Your task to perform on an android device: toggle priority inbox in the gmail app Image 0: 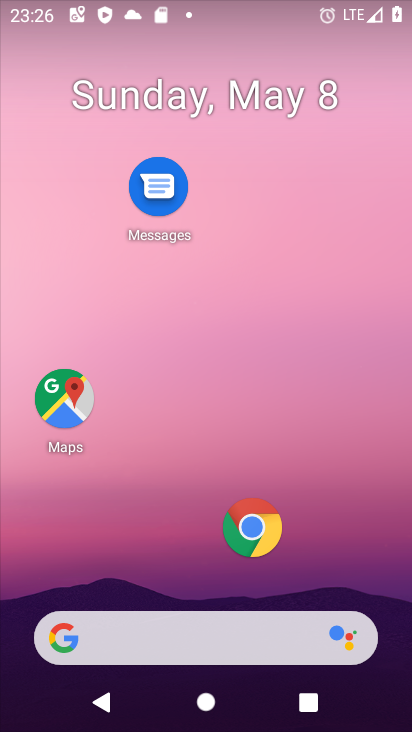
Step 0: drag from (177, 574) to (193, 90)
Your task to perform on an android device: toggle priority inbox in the gmail app Image 1: 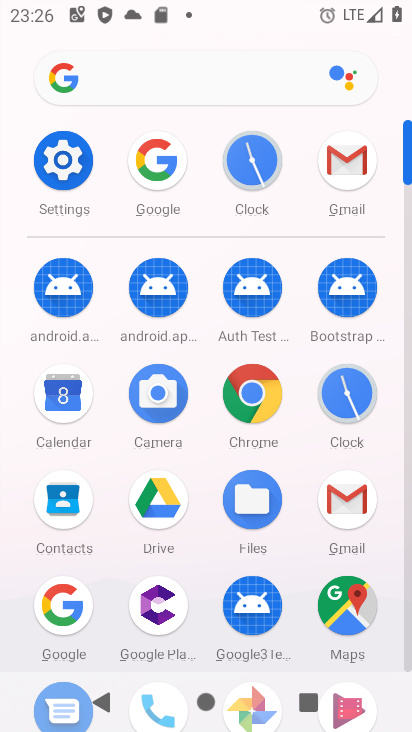
Step 1: click (347, 162)
Your task to perform on an android device: toggle priority inbox in the gmail app Image 2: 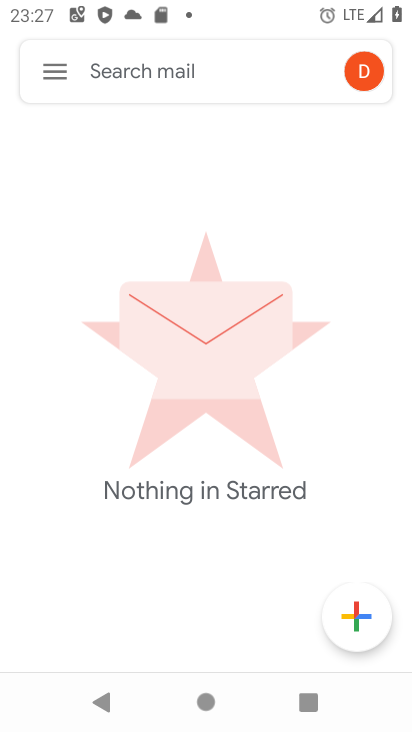
Step 2: click (61, 74)
Your task to perform on an android device: toggle priority inbox in the gmail app Image 3: 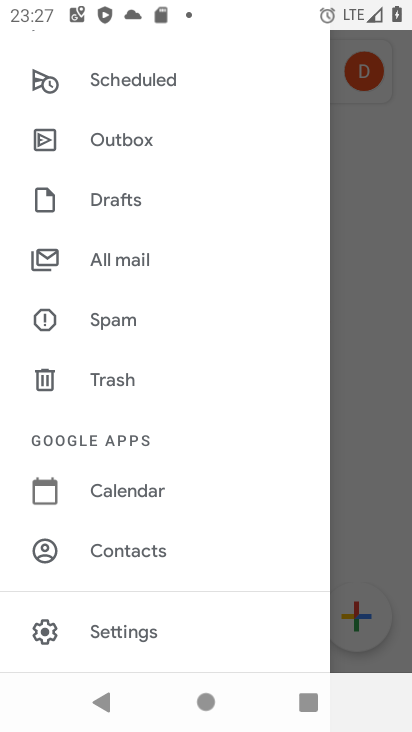
Step 3: click (148, 626)
Your task to perform on an android device: toggle priority inbox in the gmail app Image 4: 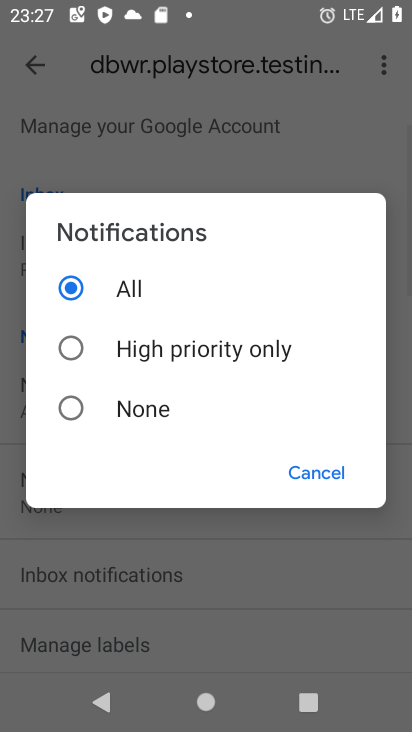
Step 4: click (302, 467)
Your task to perform on an android device: toggle priority inbox in the gmail app Image 5: 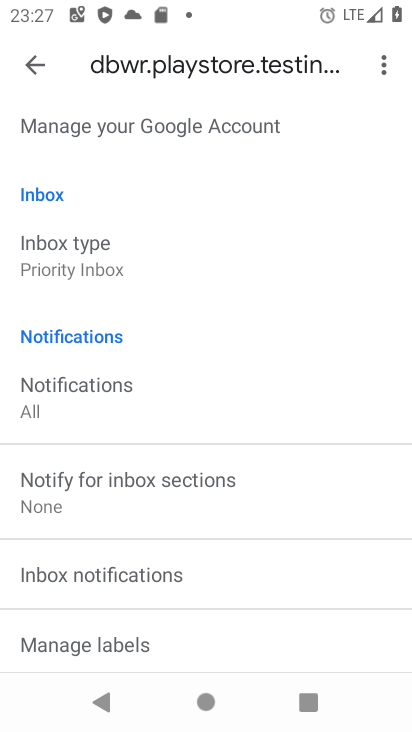
Step 5: click (105, 255)
Your task to perform on an android device: toggle priority inbox in the gmail app Image 6: 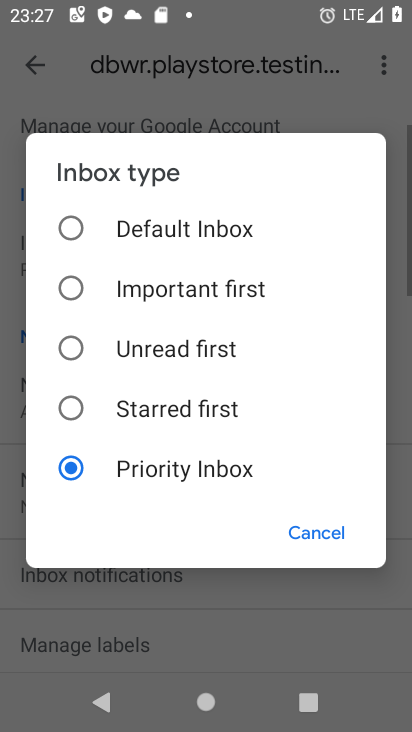
Step 6: click (72, 232)
Your task to perform on an android device: toggle priority inbox in the gmail app Image 7: 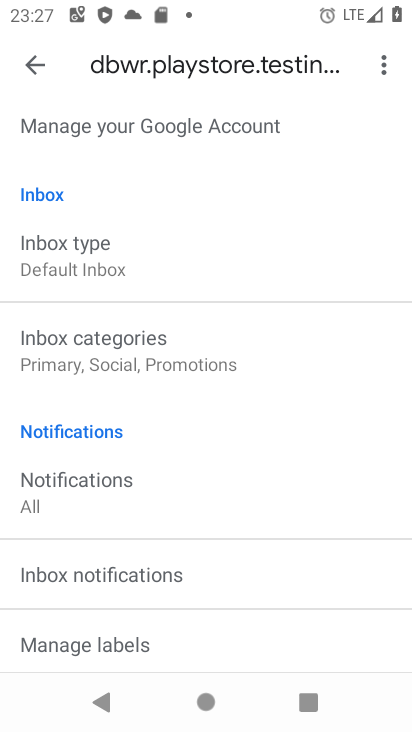
Step 7: task complete